Your task to perform on an android device: refresh tabs in the chrome app Image 0: 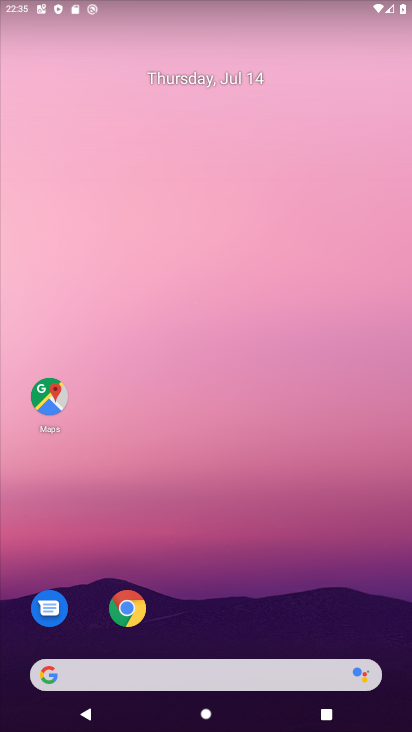
Step 0: click (124, 603)
Your task to perform on an android device: refresh tabs in the chrome app Image 1: 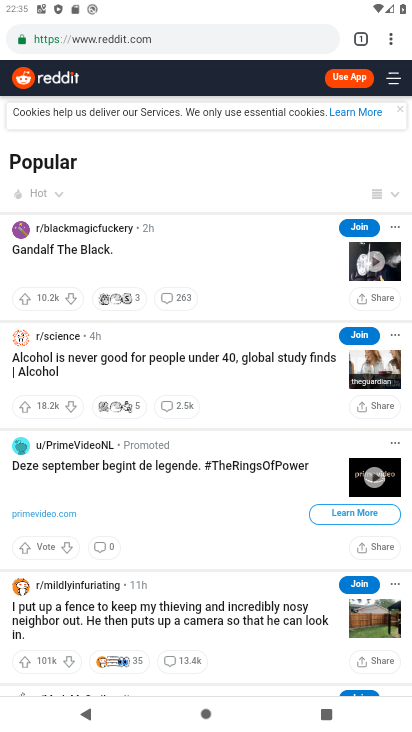
Step 1: click (389, 38)
Your task to perform on an android device: refresh tabs in the chrome app Image 2: 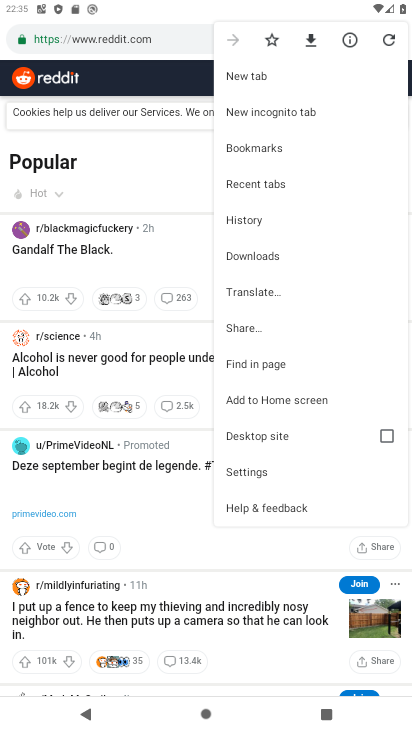
Step 2: click (387, 39)
Your task to perform on an android device: refresh tabs in the chrome app Image 3: 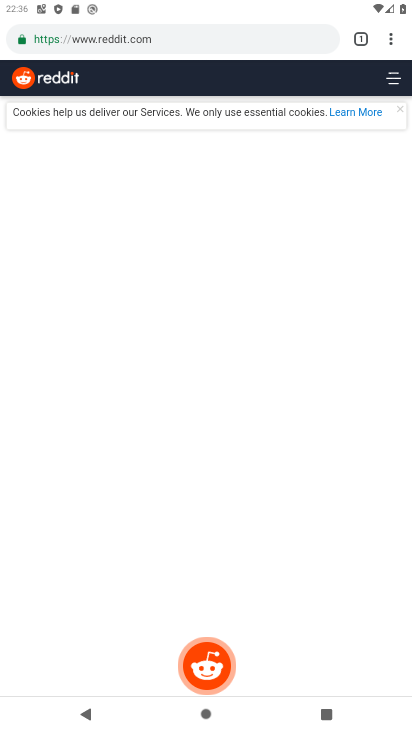
Step 3: task complete